Your task to perform on an android device: Is it going to rain today? Image 0: 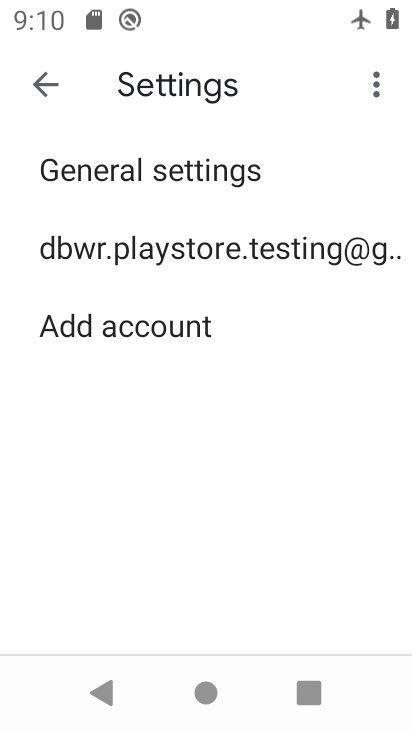
Step 0: press home button
Your task to perform on an android device: Is it going to rain today? Image 1: 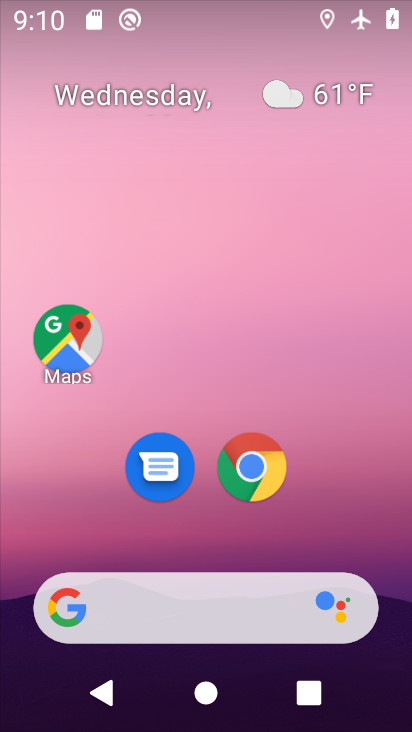
Step 1: drag from (39, 152) to (387, 177)
Your task to perform on an android device: Is it going to rain today? Image 2: 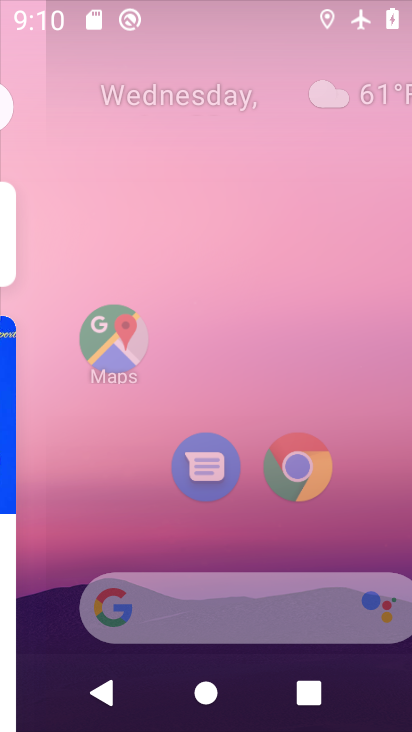
Step 2: drag from (53, 159) to (387, 179)
Your task to perform on an android device: Is it going to rain today? Image 3: 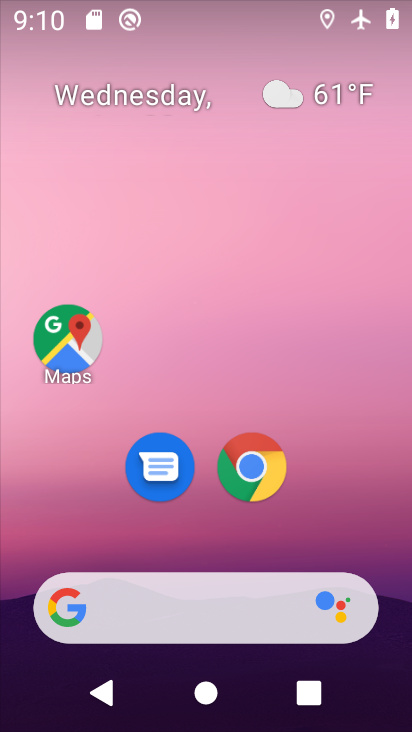
Step 3: drag from (2, 133) to (409, 200)
Your task to perform on an android device: Is it going to rain today? Image 4: 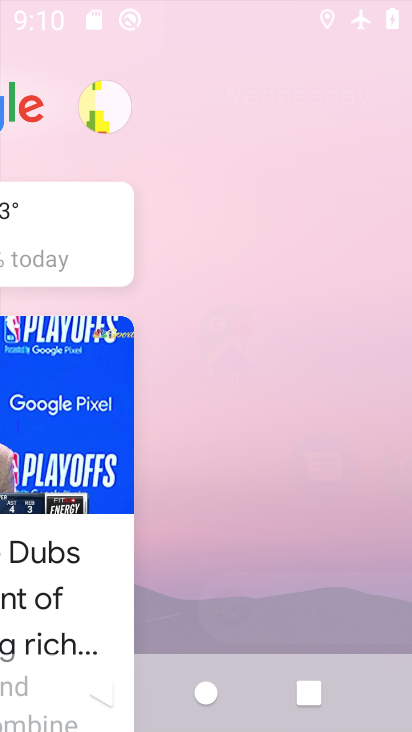
Step 4: drag from (249, 144) to (362, 147)
Your task to perform on an android device: Is it going to rain today? Image 5: 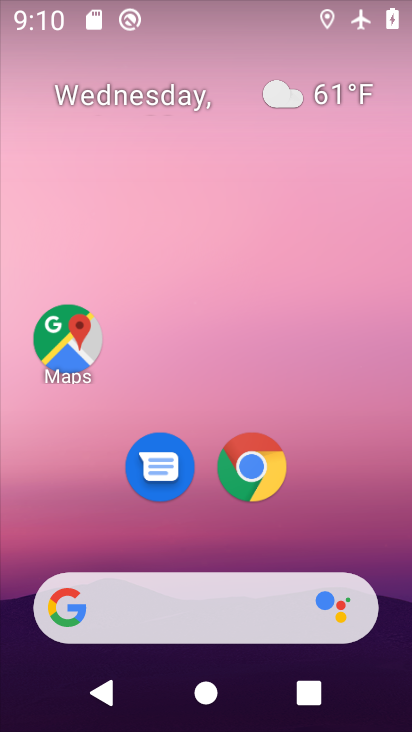
Step 5: drag from (13, 138) to (376, 178)
Your task to perform on an android device: Is it going to rain today? Image 6: 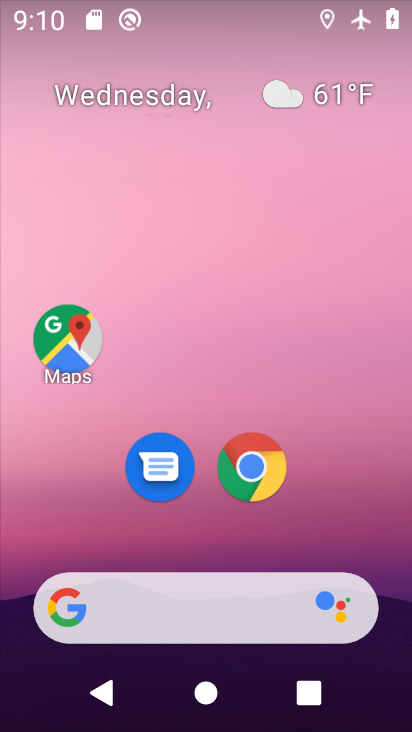
Step 6: drag from (341, 111) to (371, 140)
Your task to perform on an android device: Is it going to rain today? Image 7: 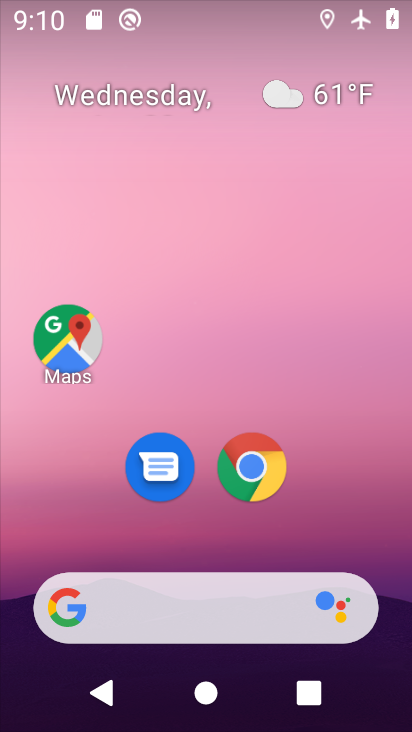
Step 7: drag from (219, 139) to (323, 57)
Your task to perform on an android device: Is it going to rain today? Image 8: 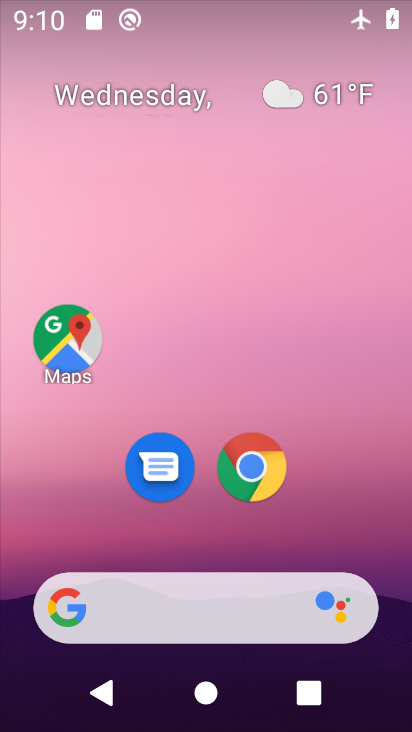
Step 8: drag from (2, 118) to (391, 132)
Your task to perform on an android device: Is it going to rain today? Image 9: 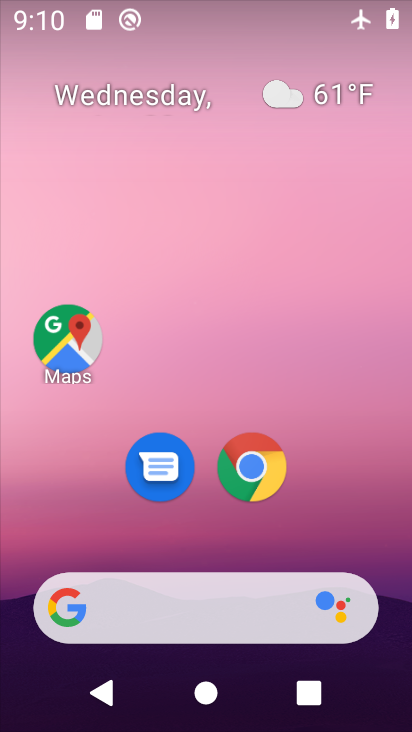
Step 9: drag from (128, 117) to (409, 125)
Your task to perform on an android device: Is it going to rain today? Image 10: 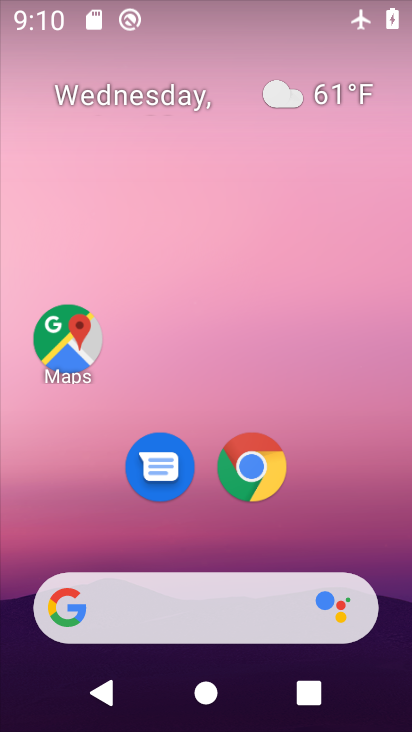
Step 10: drag from (6, 147) to (361, 111)
Your task to perform on an android device: Is it going to rain today? Image 11: 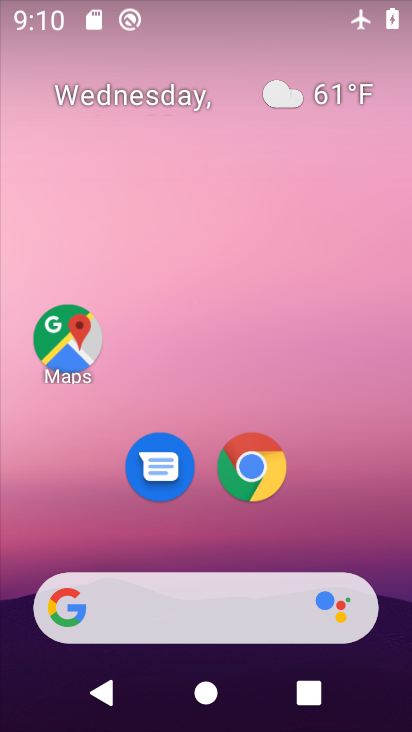
Step 11: drag from (0, 93) to (390, 436)
Your task to perform on an android device: Is it going to rain today? Image 12: 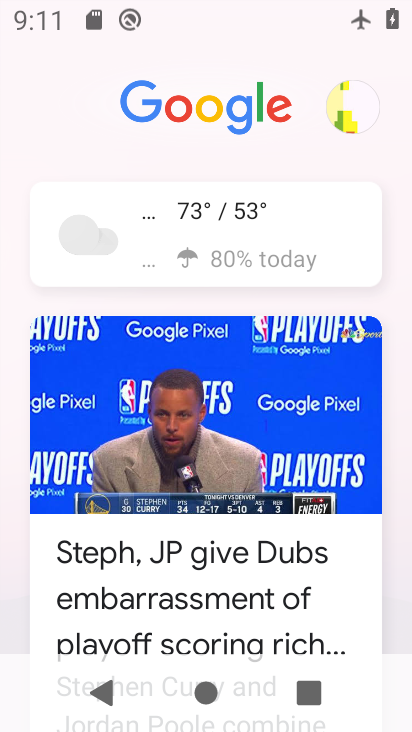
Step 12: click (190, 249)
Your task to perform on an android device: Is it going to rain today? Image 13: 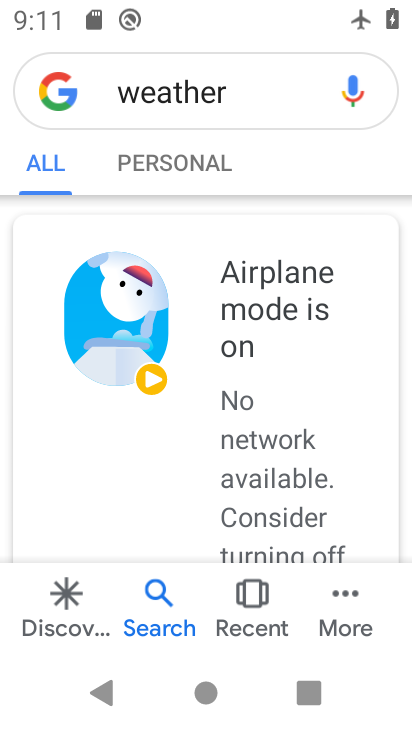
Step 13: task complete